Your task to perform on an android device: delete location history Image 0: 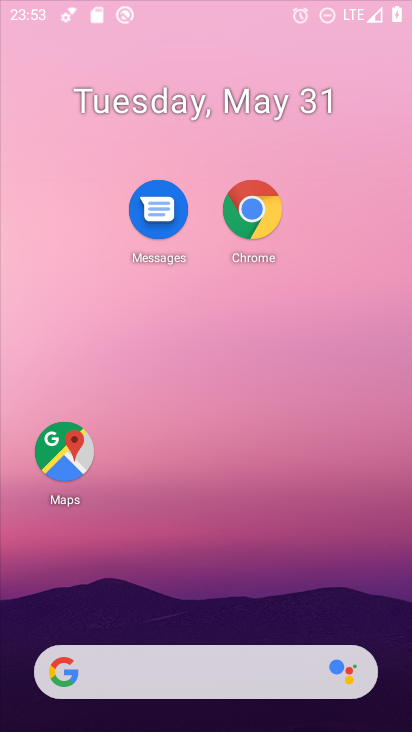
Step 0: press home button
Your task to perform on an android device: delete location history Image 1: 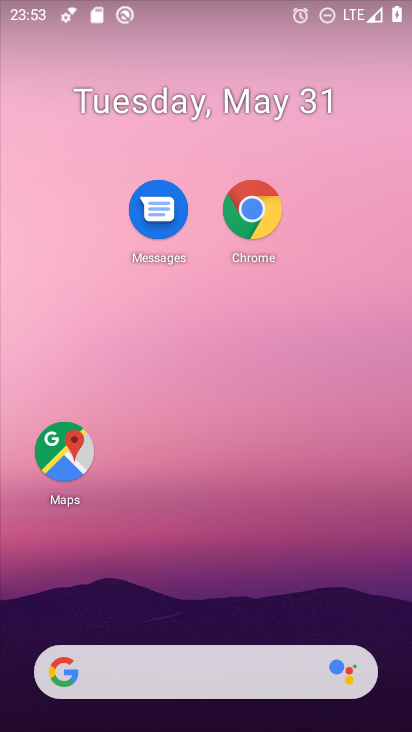
Step 1: click (63, 446)
Your task to perform on an android device: delete location history Image 2: 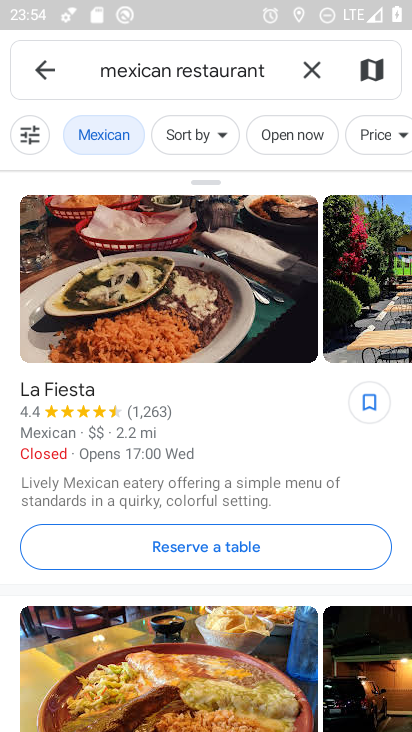
Step 2: click (310, 68)
Your task to perform on an android device: delete location history Image 3: 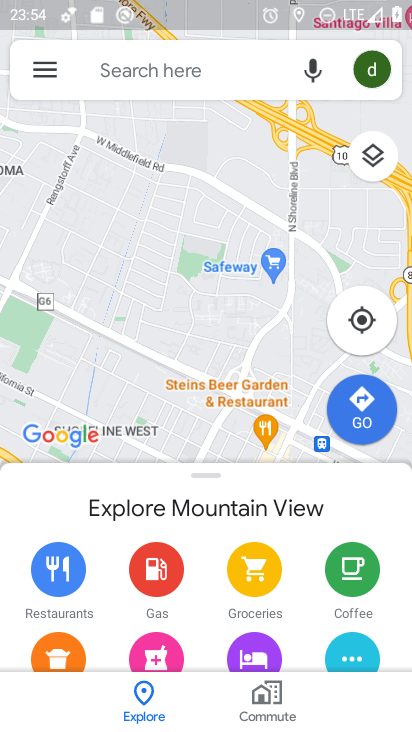
Step 3: click (33, 62)
Your task to perform on an android device: delete location history Image 4: 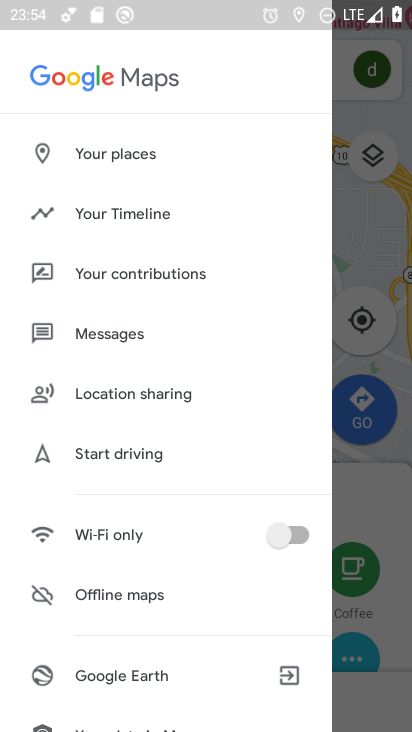
Step 4: drag from (197, 675) to (224, 75)
Your task to perform on an android device: delete location history Image 5: 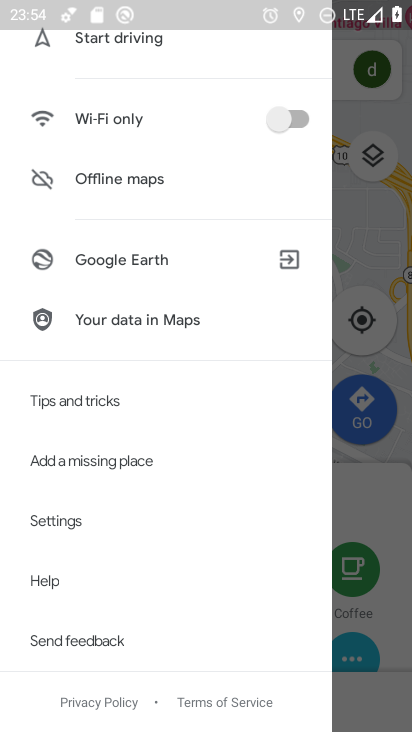
Step 5: click (92, 518)
Your task to perform on an android device: delete location history Image 6: 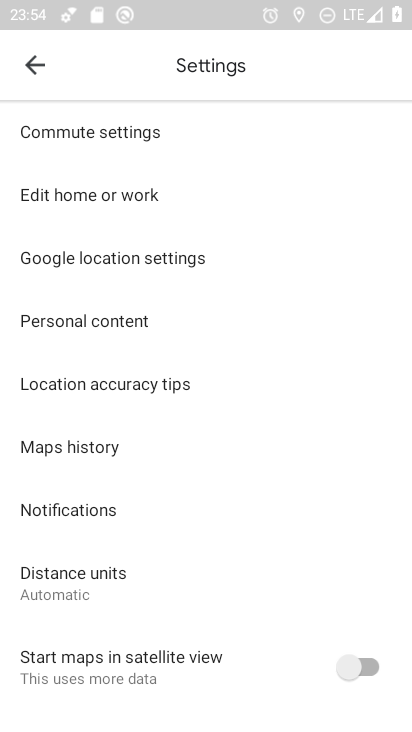
Step 6: click (38, 67)
Your task to perform on an android device: delete location history Image 7: 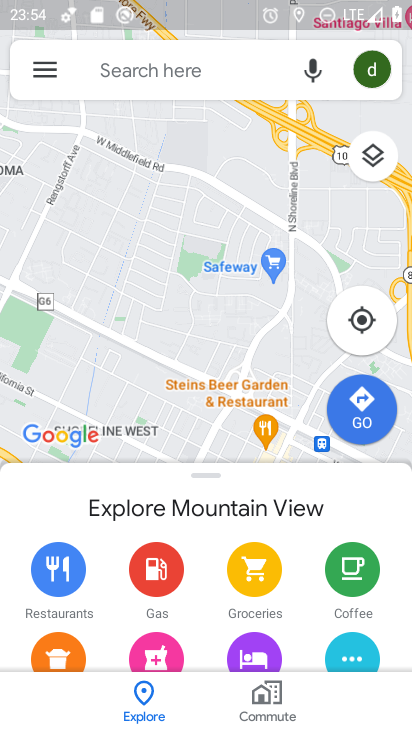
Step 7: click (41, 68)
Your task to perform on an android device: delete location history Image 8: 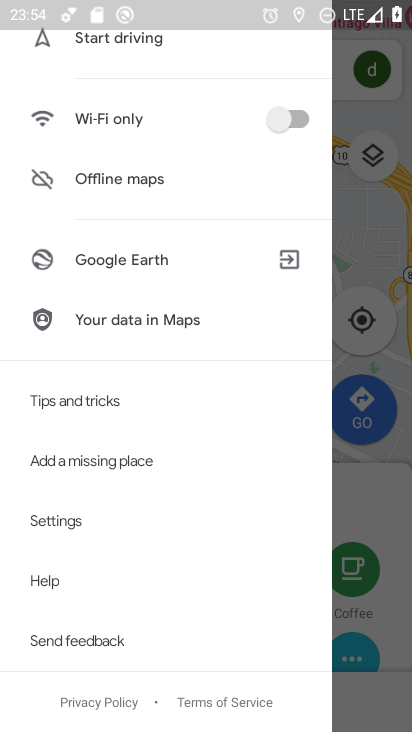
Step 8: drag from (152, 81) to (119, 638)
Your task to perform on an android device: delete location history Image 9: 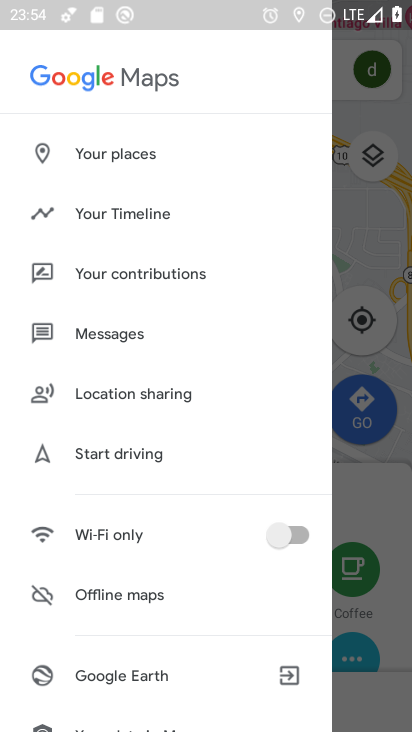
Step 9: click (185, 205)
Your task to perform on an android device: delete location history Image 10: 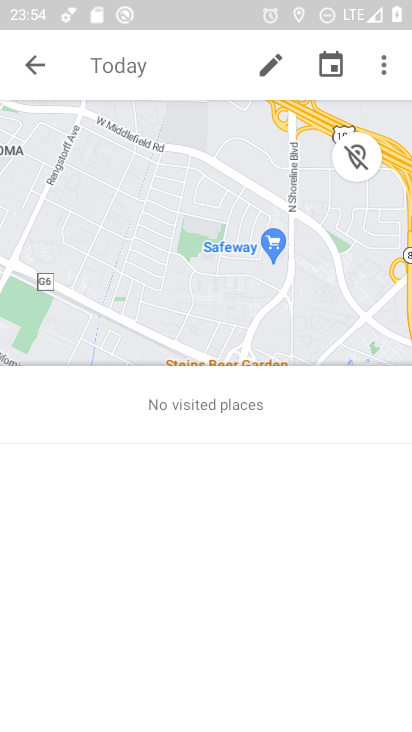
Step 10: click (394, 56)
Your task to perform on an android device: delete location history Image 11: 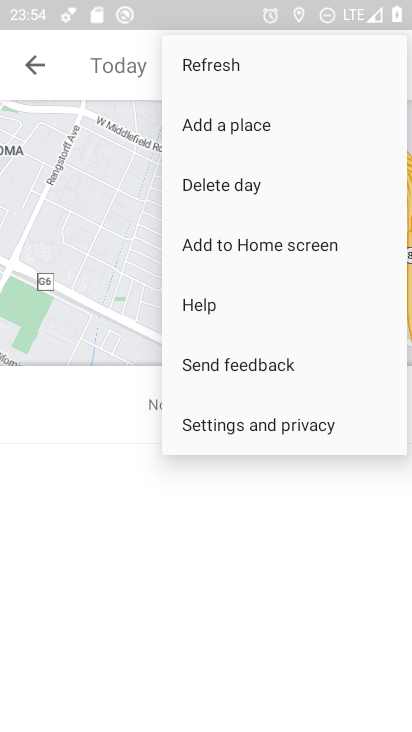
Step 11: click (273, 436)
Your task to perform on an android device: delete location history Image 12: 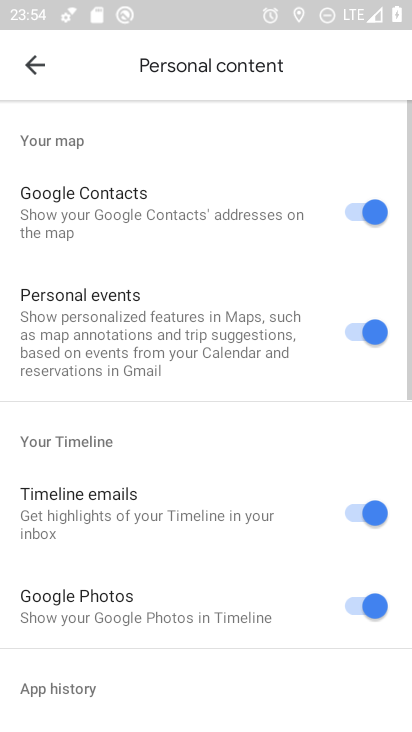
Step 12: drag from (220, 655) to (222, 133)
Your task to perform on an android device: delete location history Image 13: 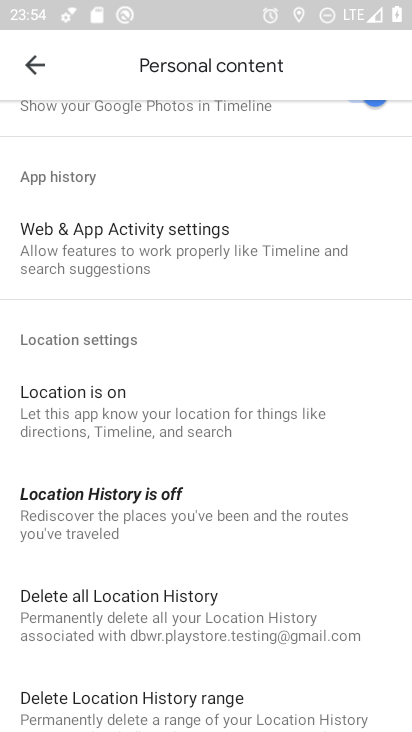
Step 13: click (224, 592)
Your task to perform on an android device: delete location history Image 14: 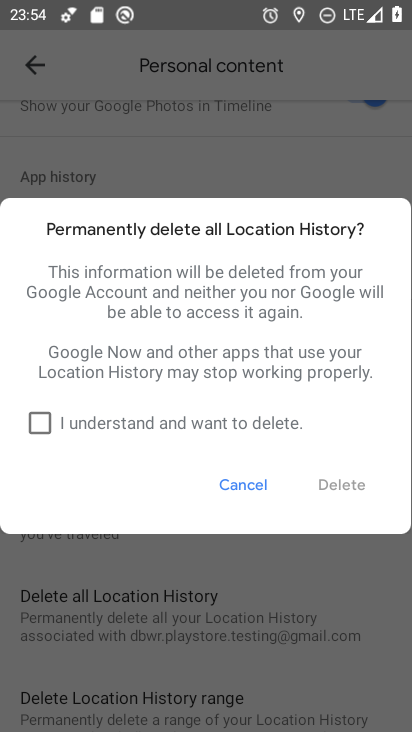
Step 14: click (40, 427)
Your task to perform on an android device: delete location history Image 15: 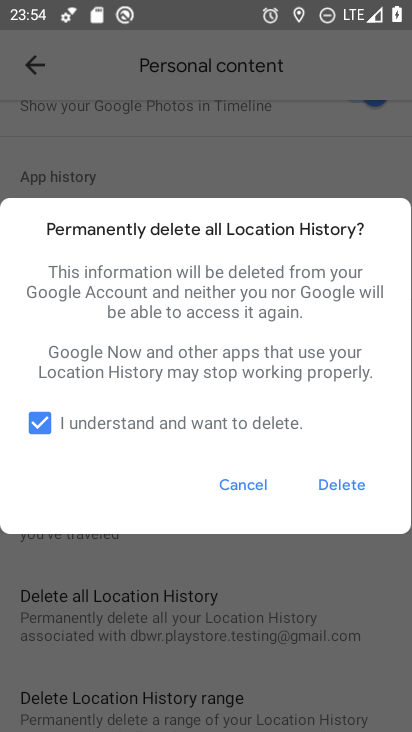
Step 15: click (339, 483)
Your task to perform on an android device: delete location history Image 16: 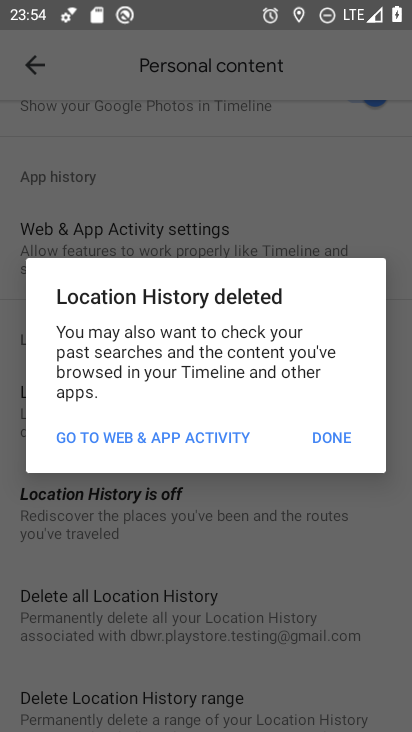
Step 16: click (327, 429)
Your task to perform on an android device: delete location history Image 17: 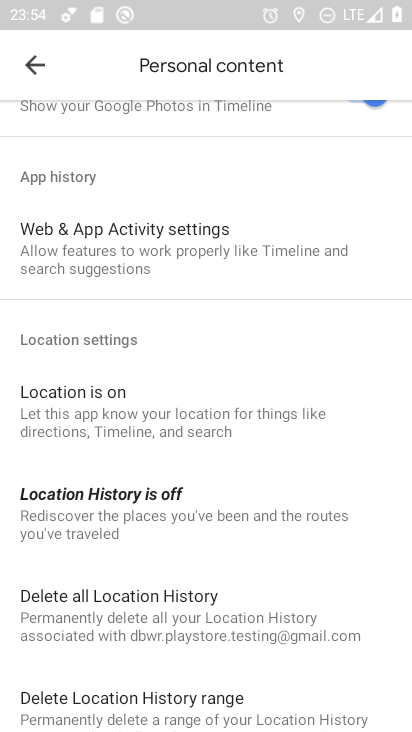
Step 17: task complete